Your task to perform on an android device: Search for "jbl charge 4" on amazon.com, select the first entry, and add it to the cart. Image 0: 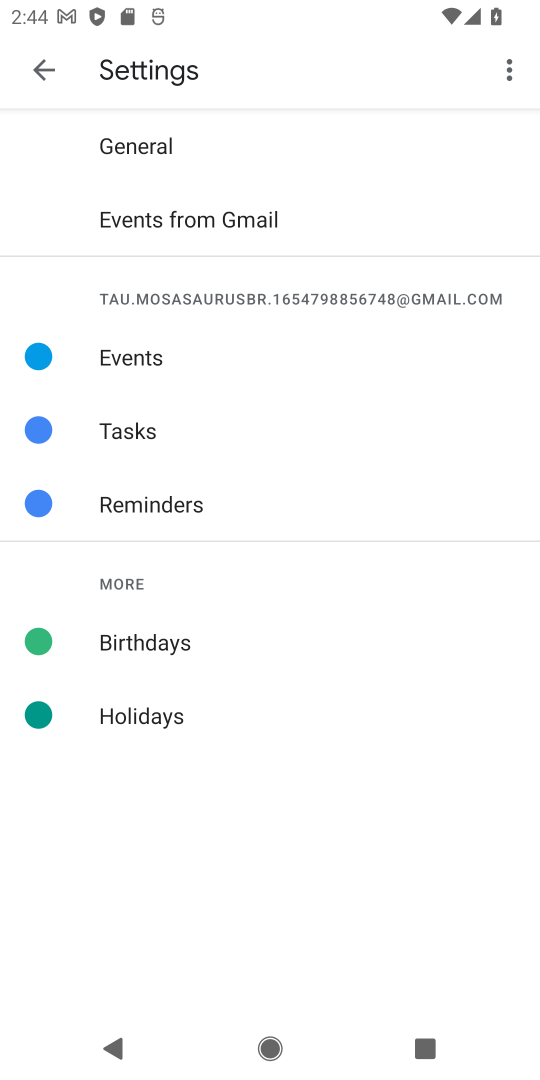
Step 0: press home button
Your task to perform on an android device: Search for "jbl charge 4" on amazon.com, select the first entry, and add it to the cart. Image 1: 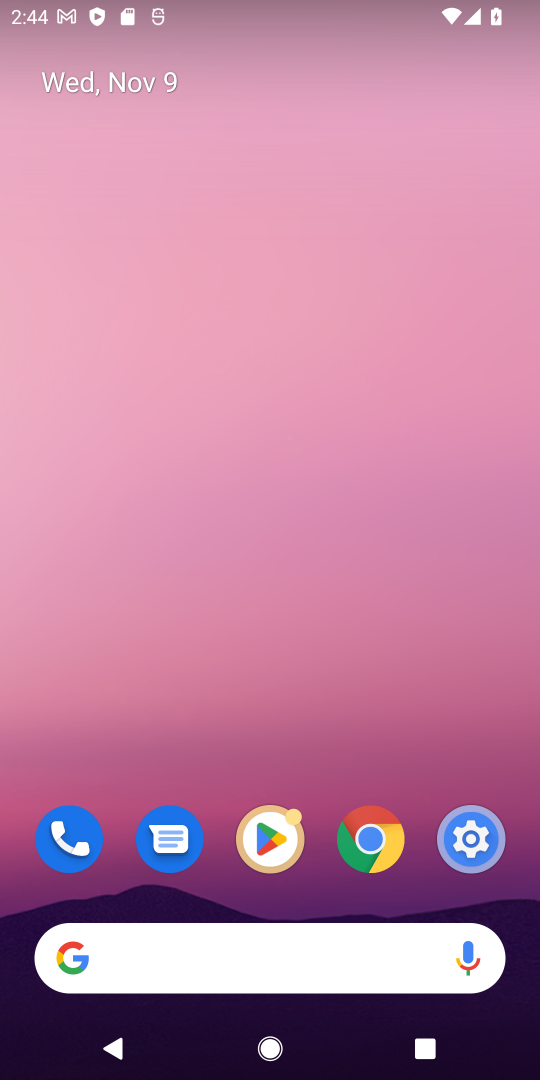
Step 1: click (194, 970)
Your task to perform on an android device: Search for "jbl charge 4" on amazon.com, select the first entry, and add it to the cart. Image 2: 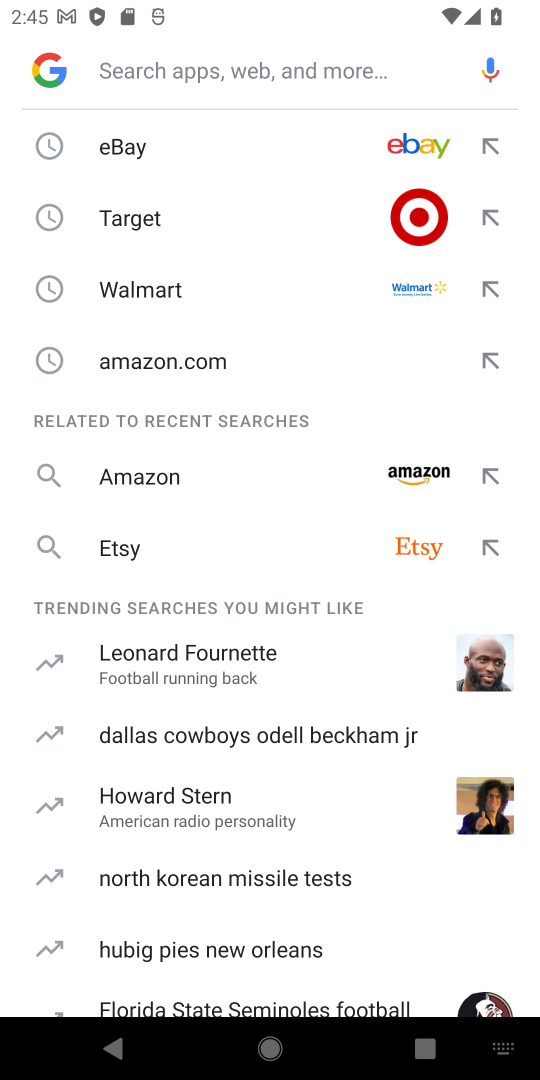
Step 2: type "jbl charge 4"
Your task to perform on an android device: Search for "jbl charge 4" on amazon.com, select the first entry, and add it to the cart. Image 3: 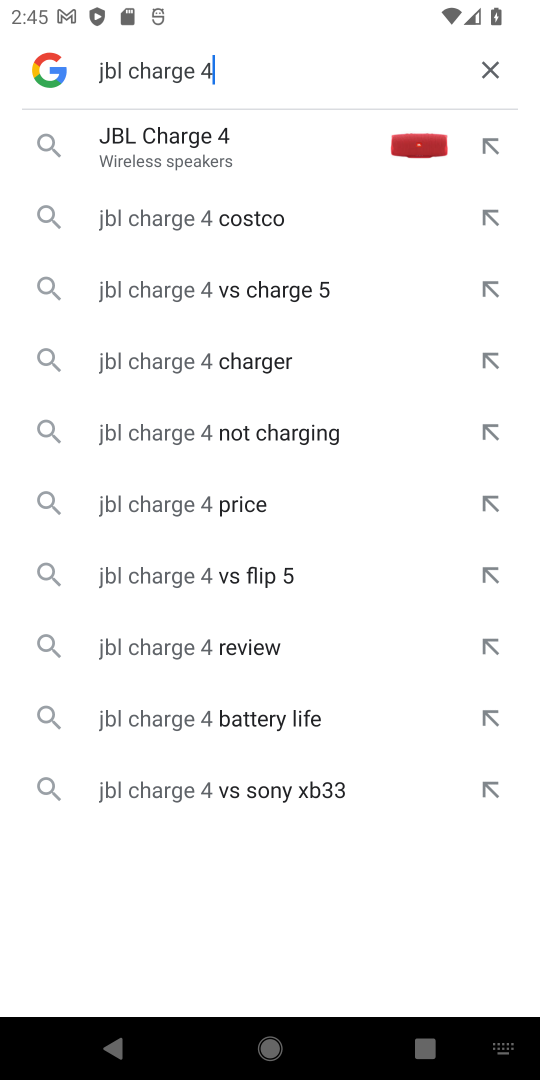
Step 3: click (206, 156)
Your task to perform on an android device: Search for "jbl charge 4" on amazon.com, select the first entry, and add it to the cart. Image 4: 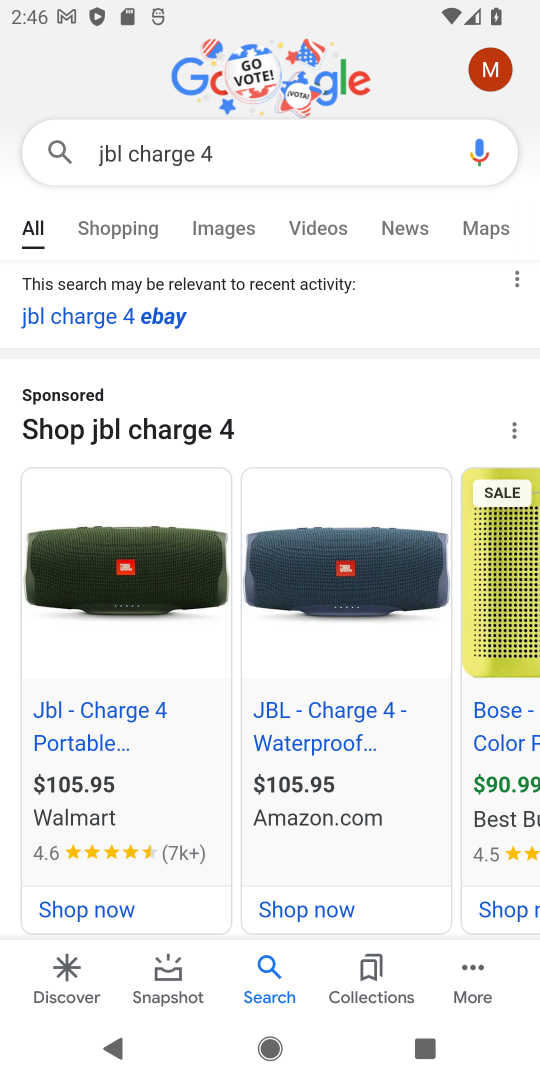
Step 4: click (134, 674)
Your task to perform on an android device: Search for "jbl charge 4" on amazon.com, select the first entry, and add it to the cart. Image 5: 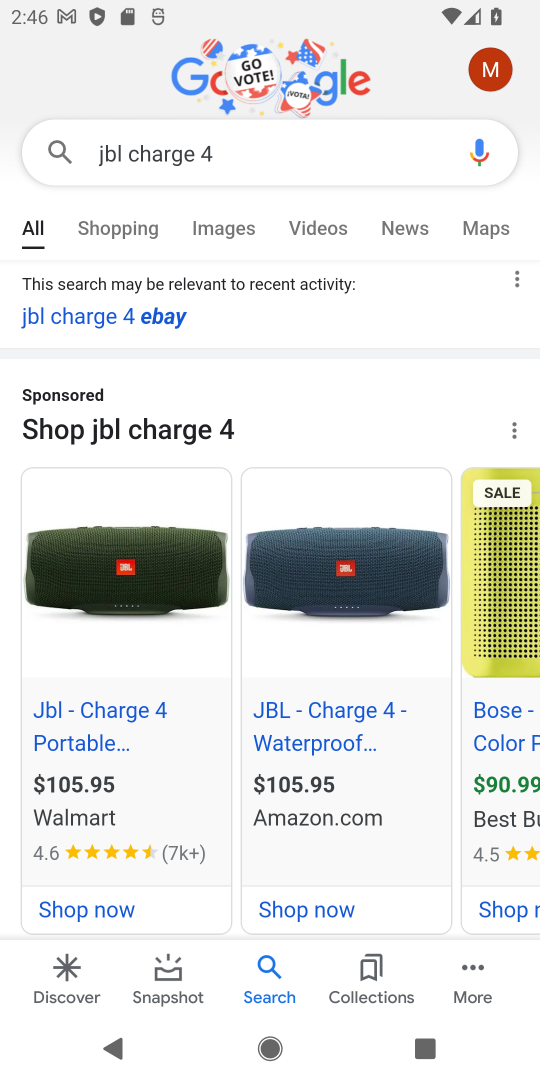
Step 5: task complete